Your task to perform on an android device: Is it going to rain tomorrow? Image 0: 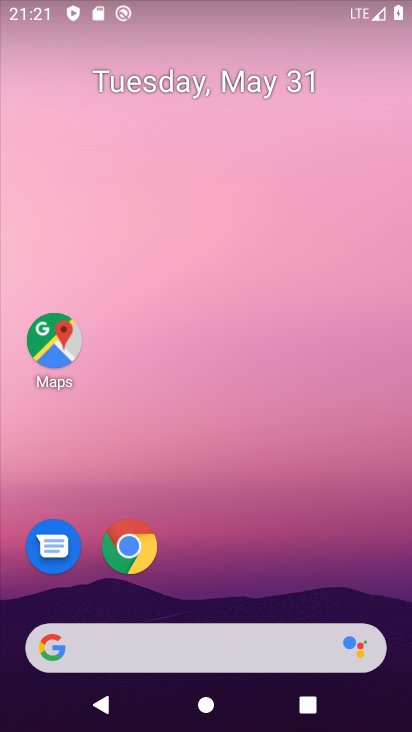
Step 0: click (194, 177)
Your task to perform on an android device: Is it going to rain tomorrow? Image 1: 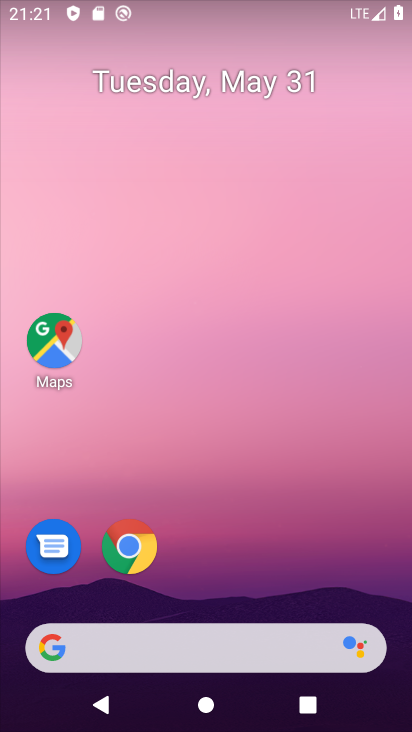
Step 1: drag from (3, 205) to (383, 234)
Your task to perform on an android device: Is it going to rain tomorrow? Image 2: 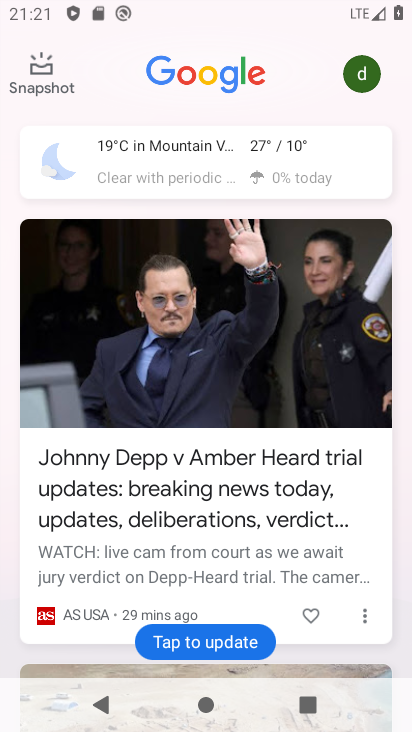
Step 2: click (276, 145)
Your task to perform on an android device: Is it going to rain tomorrow? Image 3: 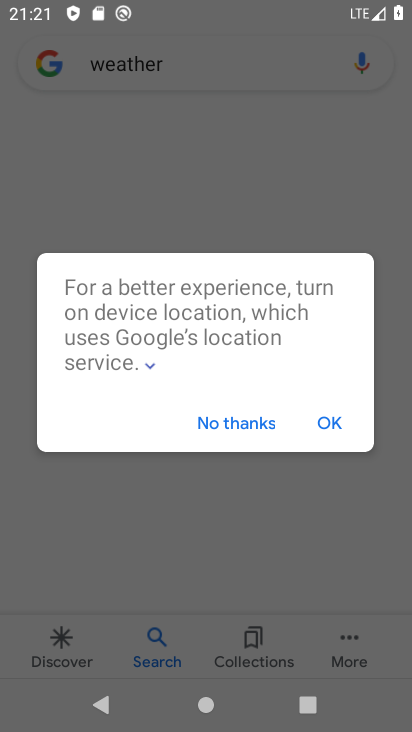
Step 3: click (329, 417)
Your task to perform on an android device: Is it going to rain tomorrow? Image 4: 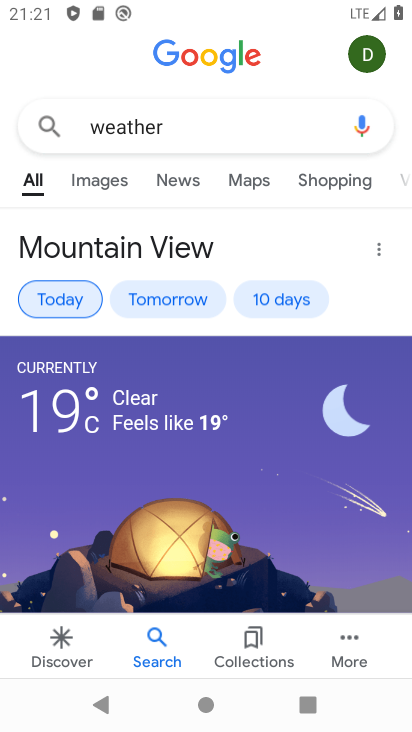
Step 4: click (168, 297)
Your task to perform on an android device: Is it going to rain tomorrow? Image 5: 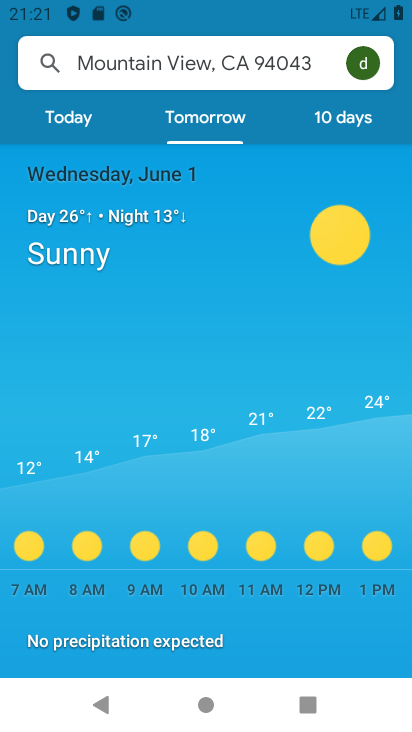
Step 5: task complete